Your task to perform on an android device: change notification settings in the gmail app Image 0: 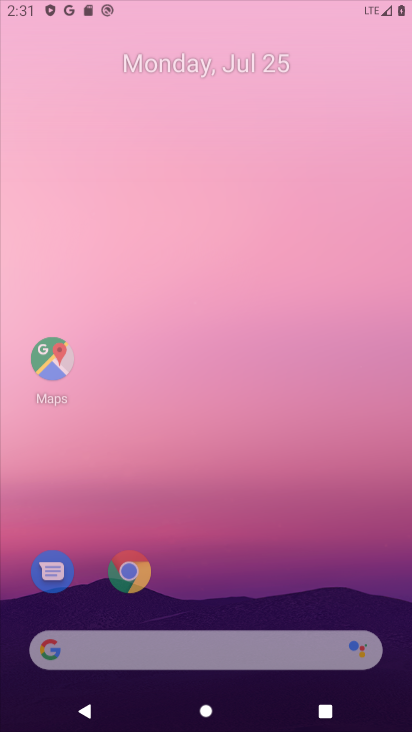
Step 0: press home button
Your task to perform on an android device: change notification settings in the gmail app Image 1: 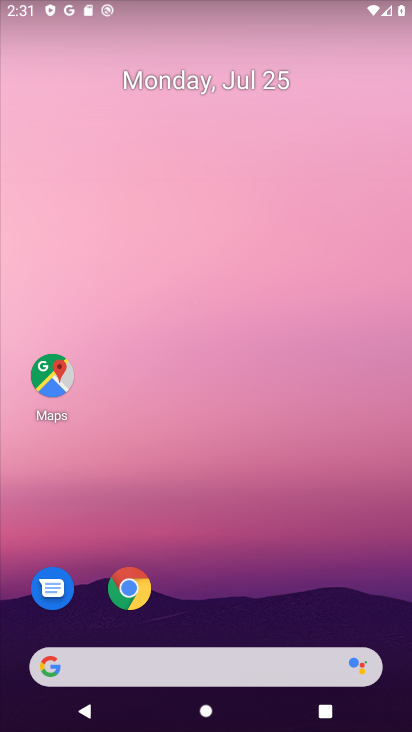
Step 1: drag from (210, 626) to (193, 0)
Your task to perform on an android device: change notification settings in the gmail app Image 2: 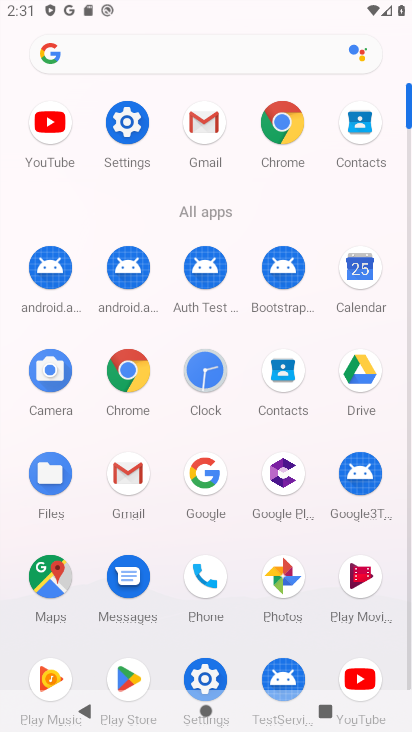
Step 2: click (204, 120)
Your task to perform on an android device: change notification settings in the gmail app Image 3: 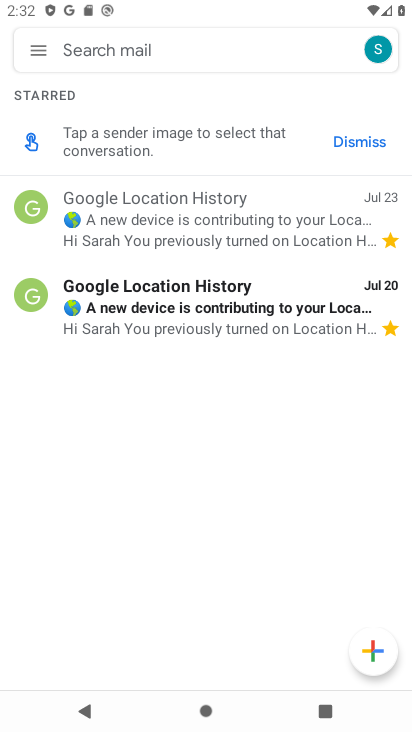
Step 3: click (31, 46)
Your task to perform on an android device: change notification settings in the gmail app Image 4: 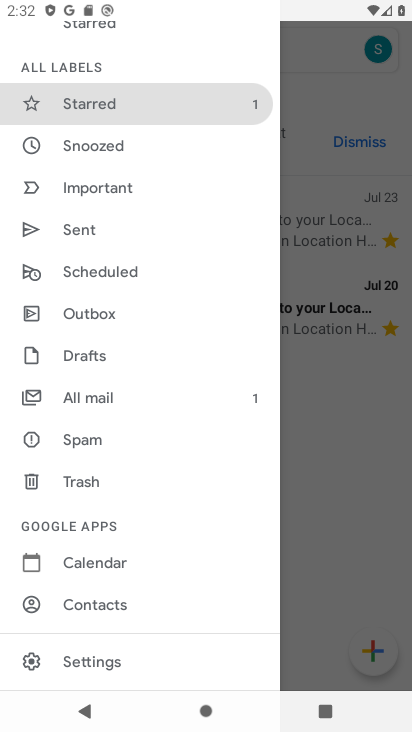
Step 4: click (137, 655)
Your task to perform on an android device: change notification settings in the gmail app Image 5: 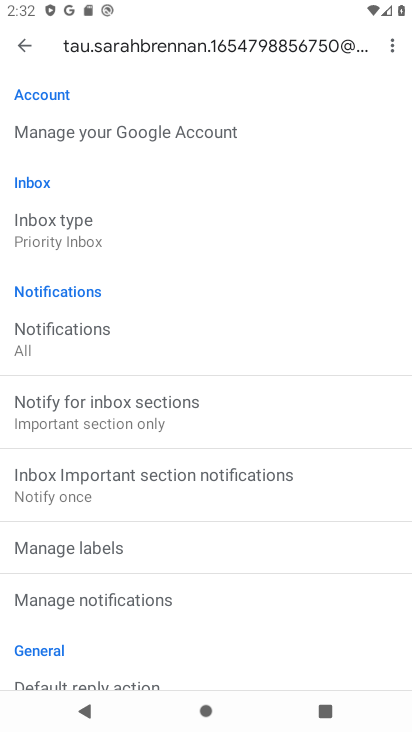
Step 5: click (19, 49)
Your task to perform on an android device: change notification settings in the gmail app Image 6: 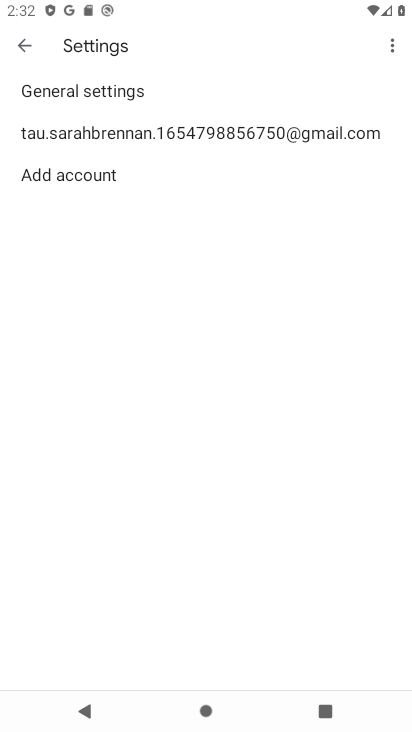
Step 6: click (129, 88)
Your task to perform on an android device: change notification settings in the gmail app Image 7: 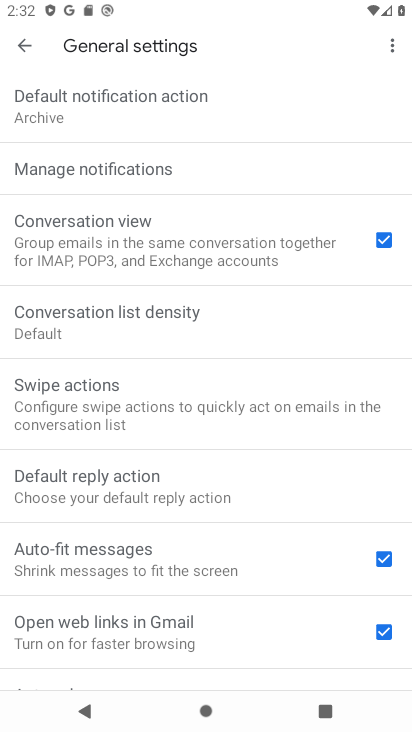
Step 7: click (181, 164)
Your task to perform on an android device: change notification settings in the gmail app Image 8: 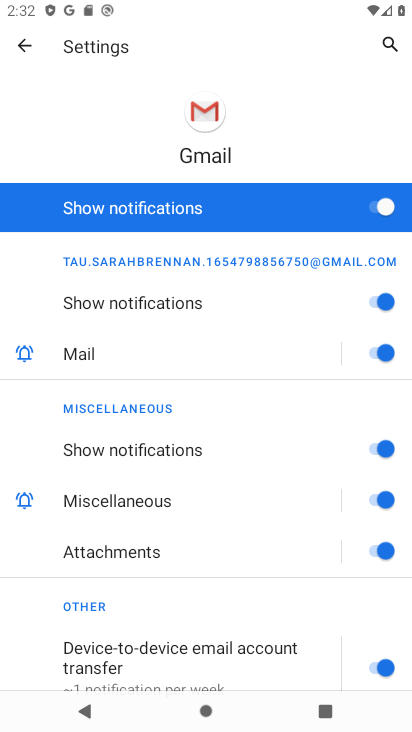
Step 8: click (370, 207)
Your task to perform on an android device: change notification settings in the gmail app Image 9: 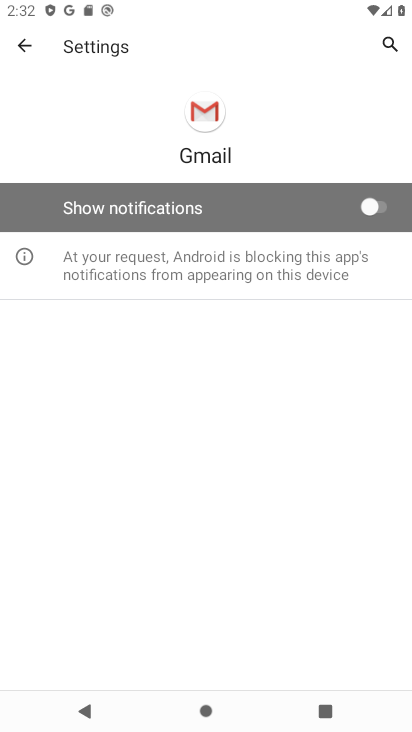
Step 9: task complete